Your task to perform on an android device: turn off priority inbox in the gmail app Image 0: 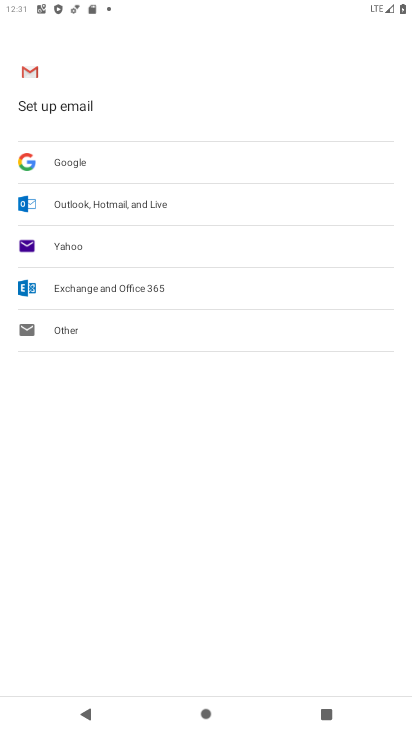
Step 0: press home button
Your task to perform on an android device: turn off priority inbox in the gmail app Image 1: 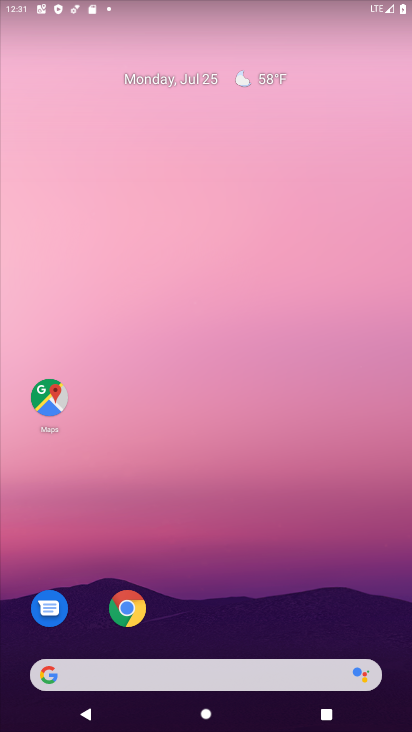
Step 1: drag from (195, 664) to (239, 57)
Your task to perform on an android device: turn off priority inbox in the gmail app Image 2: 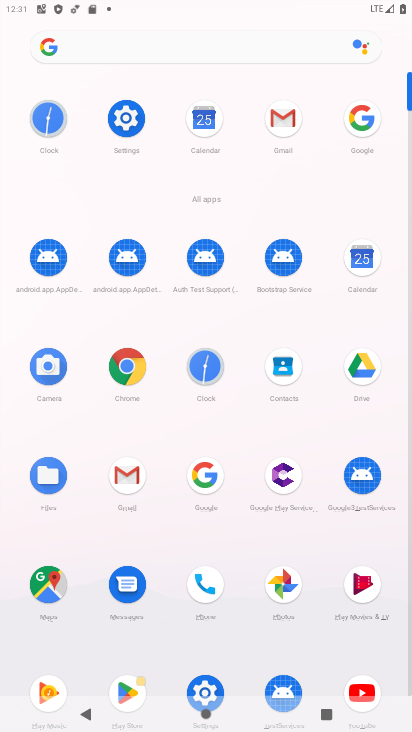
Step 2: click (280, 116)
Your task to perform on an android device: turn off priority inbox in the gmail app Image 3: 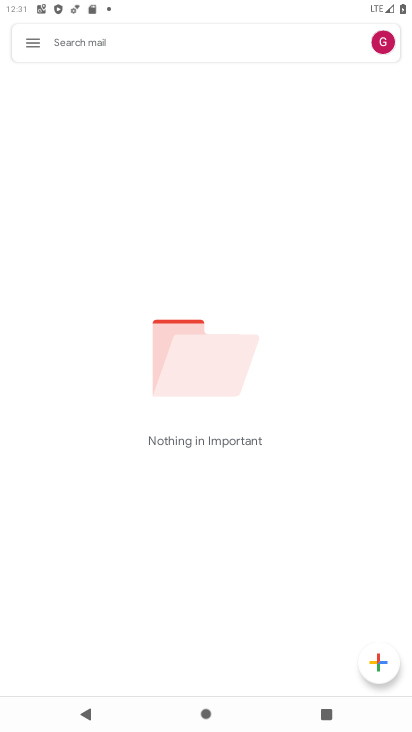
Step 3: click (29, 44)
Your task to perform on an android device: turn off priority inbox in the gmail app Image 4: 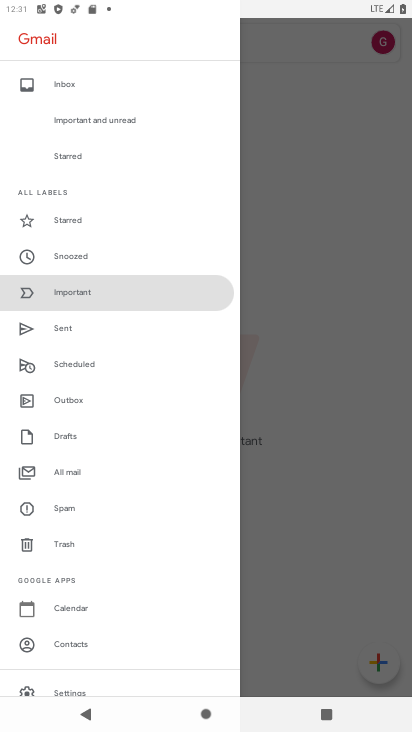
Step 4: drag from (84, 522) to (75, 376)
Your task to perform on an android device: turn off priority inbox in the gmail app Image 5: 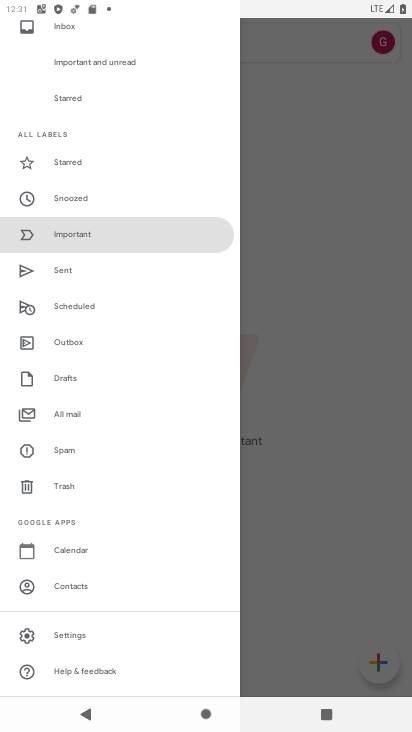
Step 5: click (63, 638)
Your task to perform on an android device: turn off priority inbox in the gmail app Image 6: 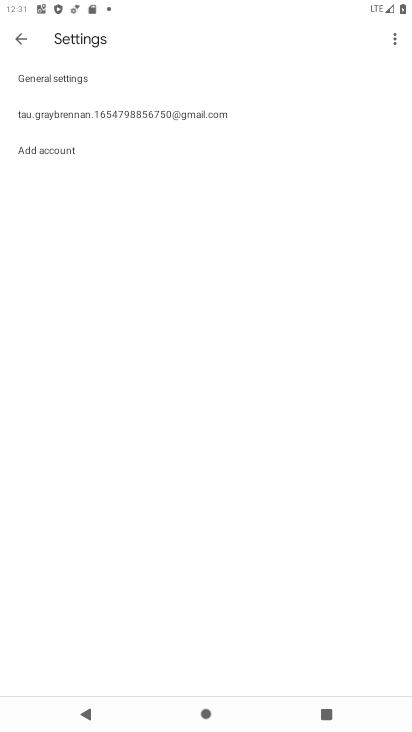
Step 6: click (118, 116)
Your task to perform on an android device: turn off priority inbox in the gmail app Image 7: 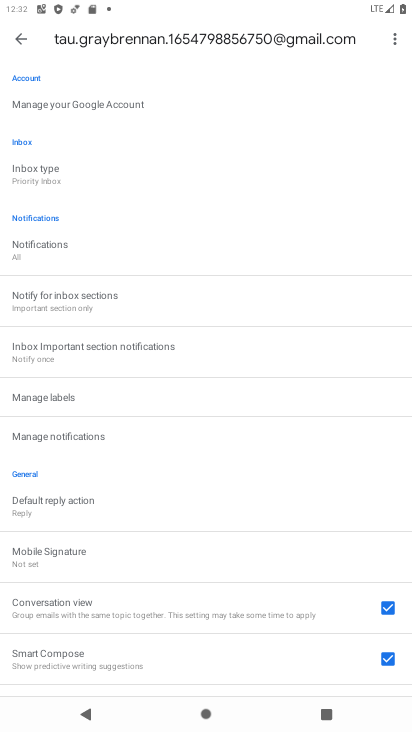
Step 7: click (43, 169)
Your task to perform on an android device: turn off priority inbox in the gmail app Image 8: 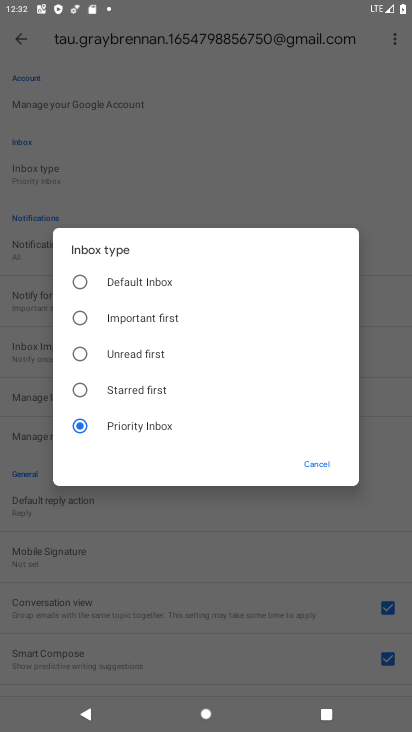
Step 8: click (77, 385)
Your task to perform on an android device: turn off priority inbox in the gmail app Image 9: 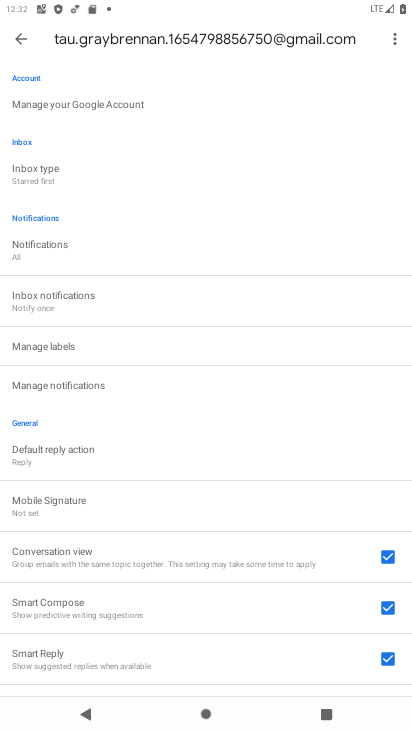
Step 9: task complete